Your task to perform on an android device: delete the emails in spam in the gmail app Image 0: 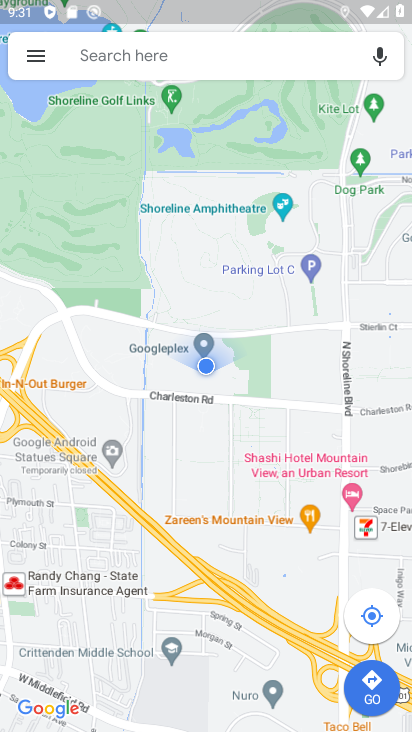
Step 0: press home button
Your task to perform on an android device: delete the emails in spam in the gmail app Image 1: 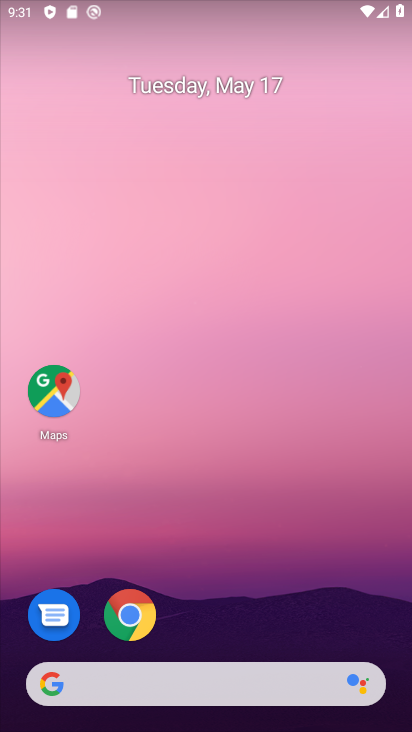
Step 1: drag from (348, 603) to (330, 85)
Your task to perform on an android device: delete the emails in spam in the gmail app Image 2: 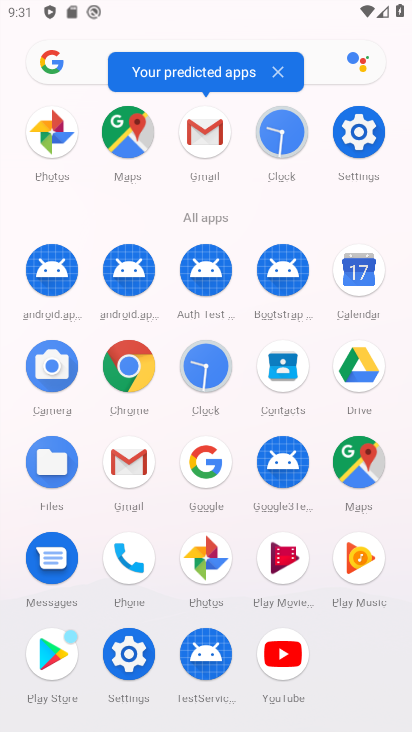
Step 2: click (128, 457)
Your task to perform on an android device: delete the emails in spam in the gmail app Image 3: 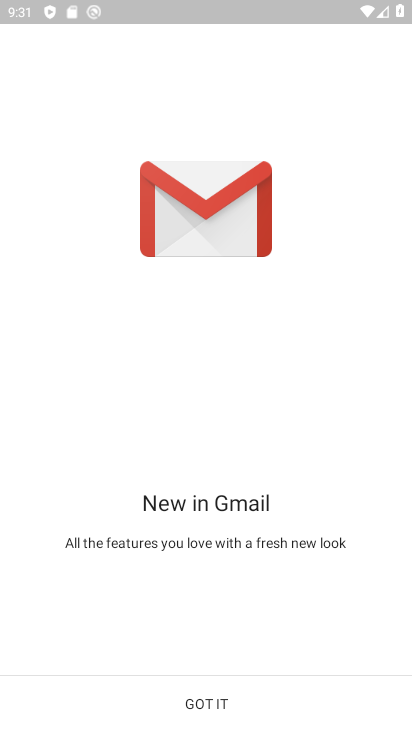
Step 3: click (201, 698)
Your task to perform on an android device: delete the emails in spam in the gmail app Image 4: 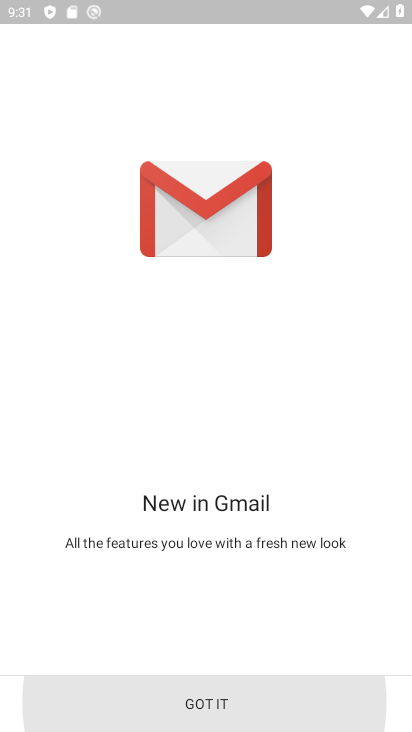
Step 4: click (201, 698)
Your task to perform on an android device: delete the emails in spam in the gmail app Image 5: 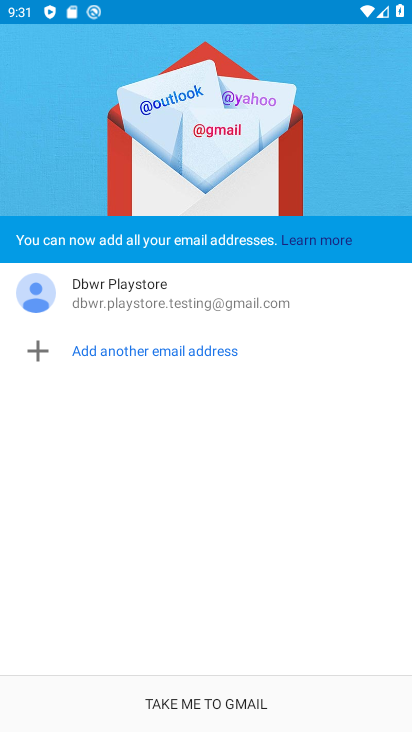
Step 5: click (201, 710)
Your task to perform on an android device: delete the emails in spam in the gmail app Image 6: 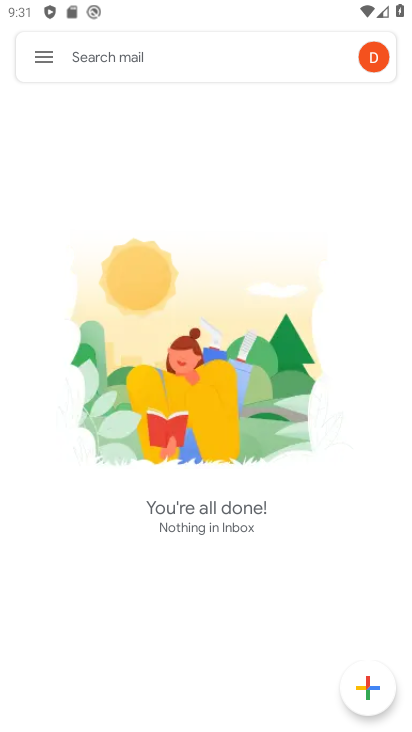
Step 6: click (44, 56)
Your task to perform on an android device: delete the emails in spam in the gmail app Image 7: 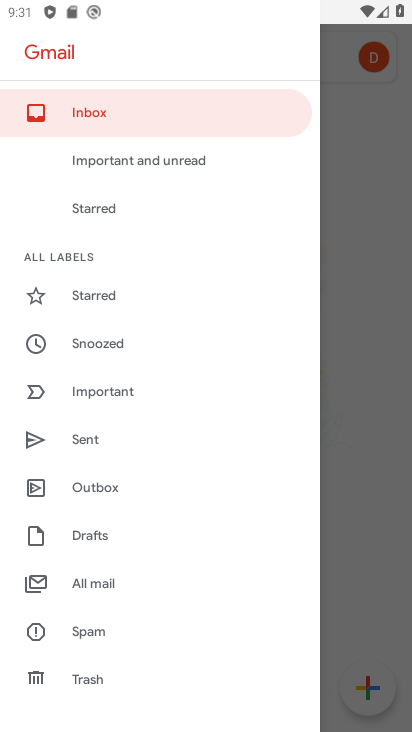
Step 7: click (106, 578)
Your task to perform on an android device: delete the emails in spam in the gmail app Image 8: 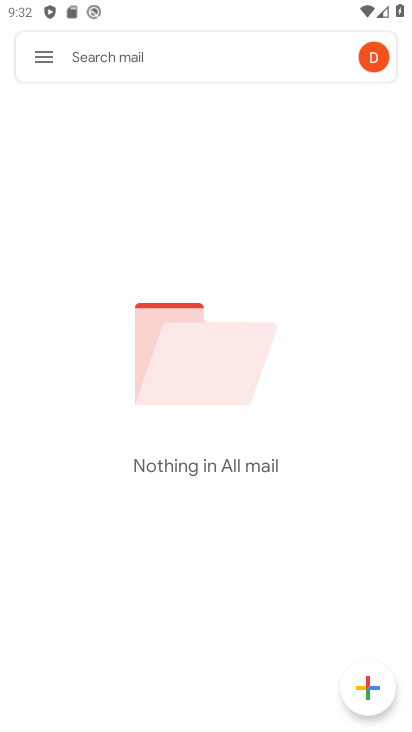
Step 8: task complete